Your task to perform on an android device: Go to Reddit.com Image 0: 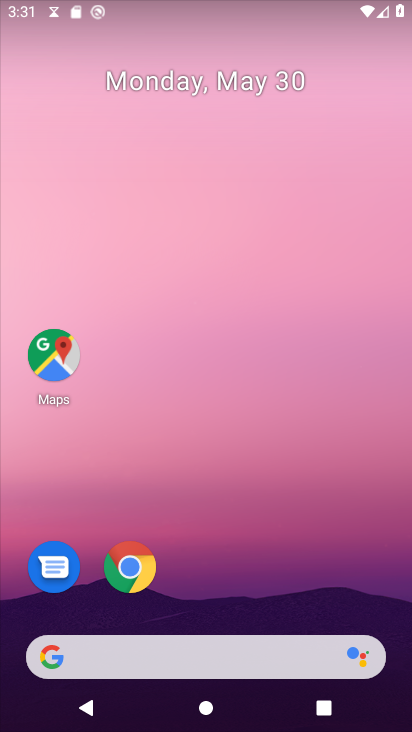
Step 0: drag from (229, 477) to (177, 21)
Your task to perform on an android device: Go to Reddit.com Image 1: 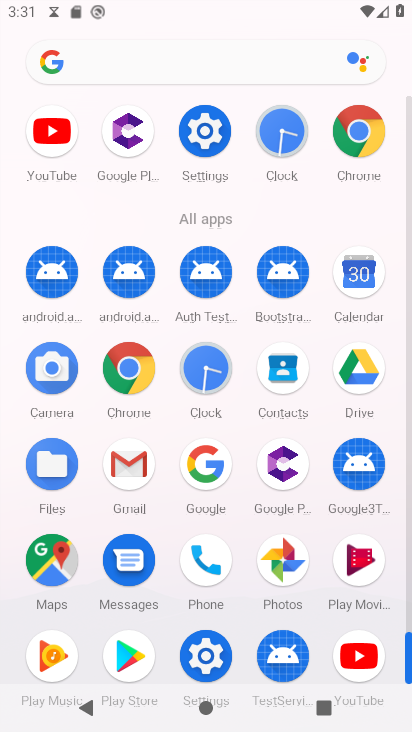
Step 1: click (347, 131)
Your task to perform on an android device: Go to Reddit.com Image 2: 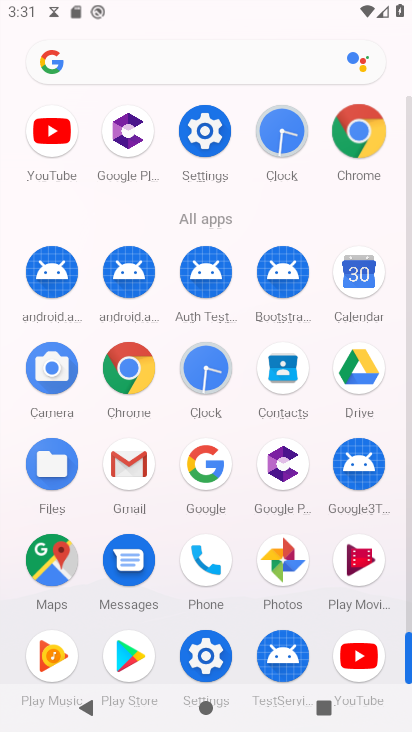
Step 2: click (348, 130)
Your task to perform on an android device: Go to Reddit.com Image 3: 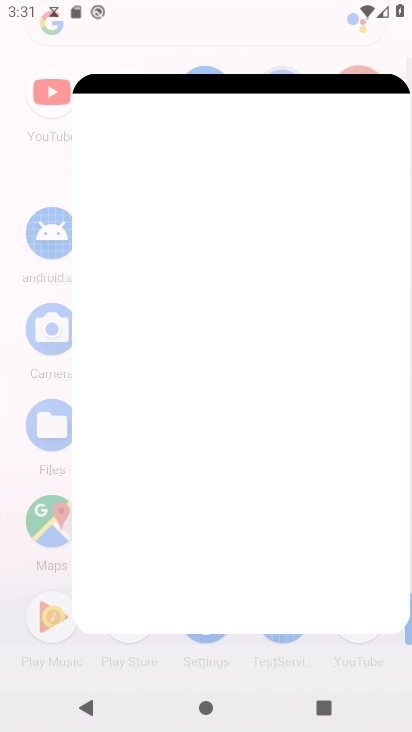
Step 3: click (350, 131)
Your task to perform on an android device: Go to Reddit.com Image 4: 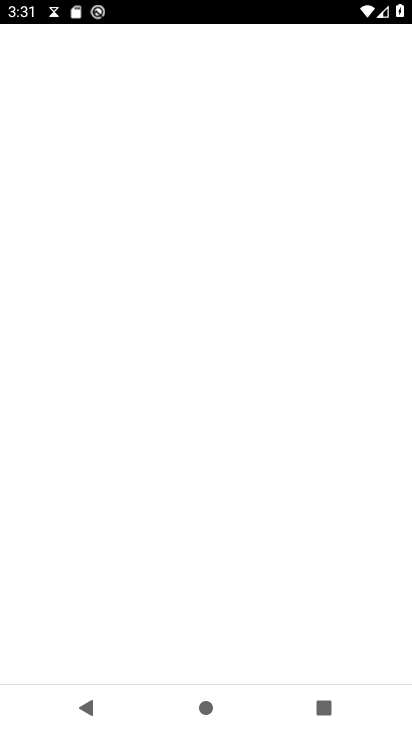
Step 4: click (354, 129)
Your task to perform on an android device: Go to Reddit.com Image 5: 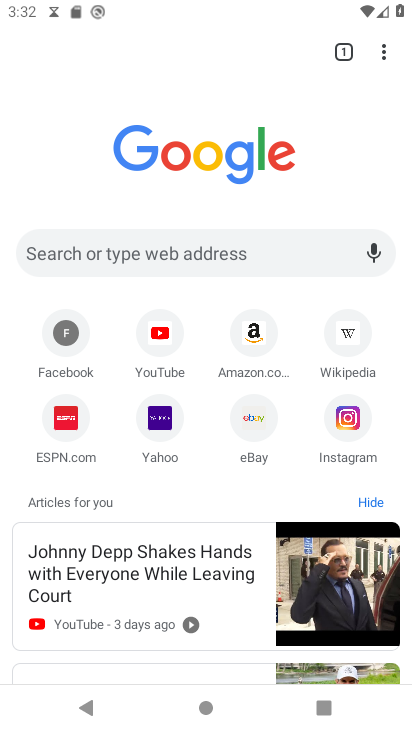
Step 5: click (76, 255)
Your task to perform on an android device: Go to Reddit.com Image 6: 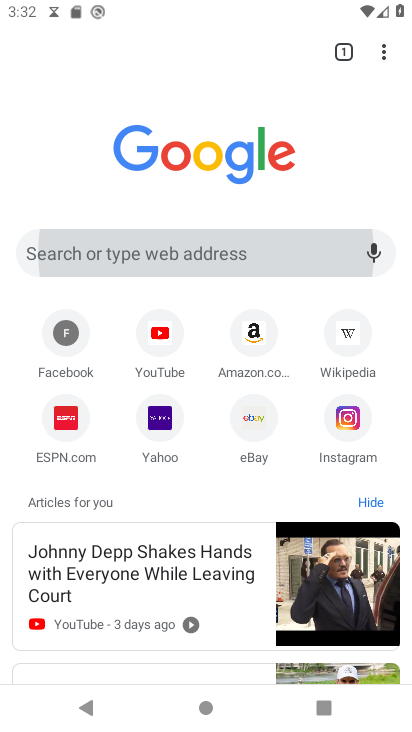
Step 6: click (75, 254)
Your task to perform on an android device: Go to Reddit.com Image 7: 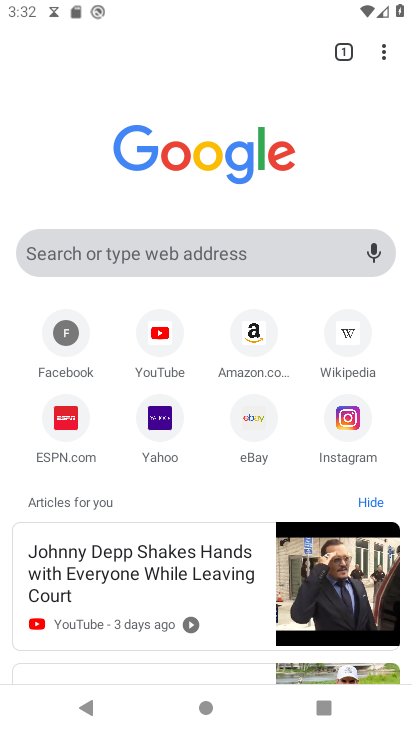
Step 7: click (75, 254)
Your task to perform on an android device: Go to Reddit.com Image 8: 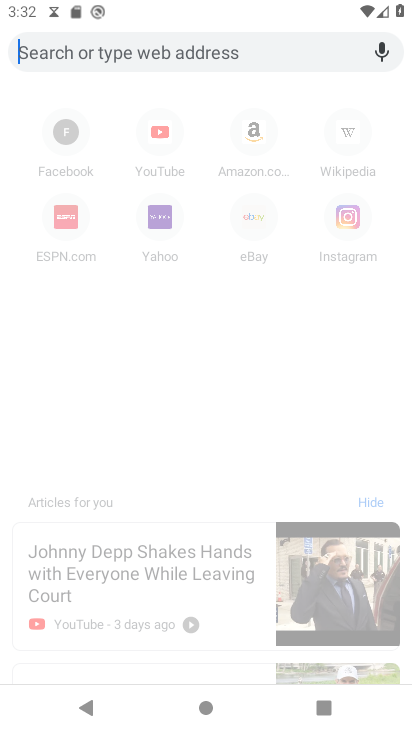
Step 8: click (76, 254)
Your task to perform on an android device: Go to Reddit.com Image 9: 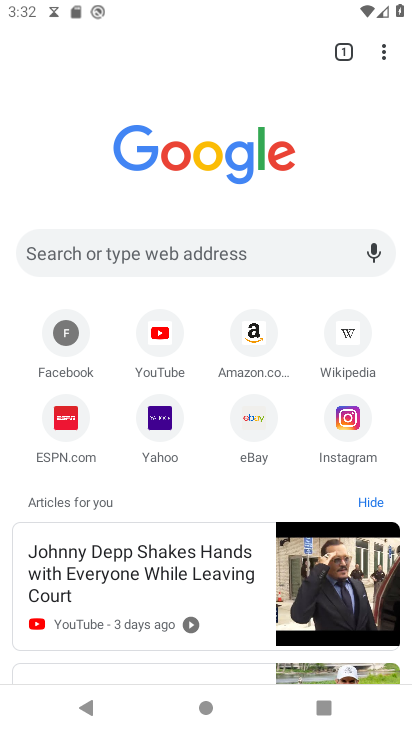
Step 9: click (46, 252)
Your task to perform on an android device: Go to Reddit.com Image 10: 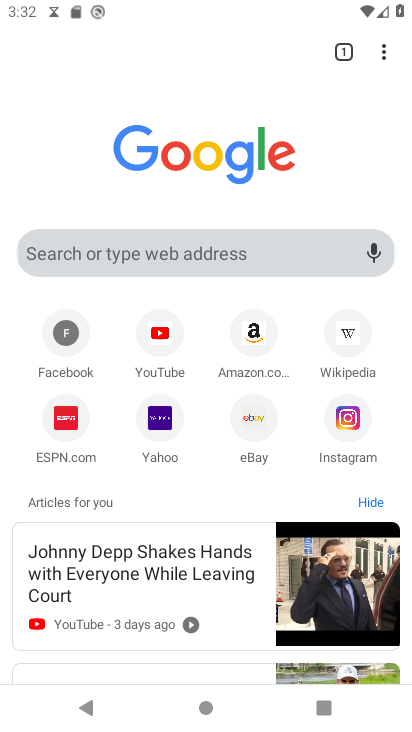
Step 10: click (45, 251)
Your task to perform on an android device: Go to Reddit.com Image 11: 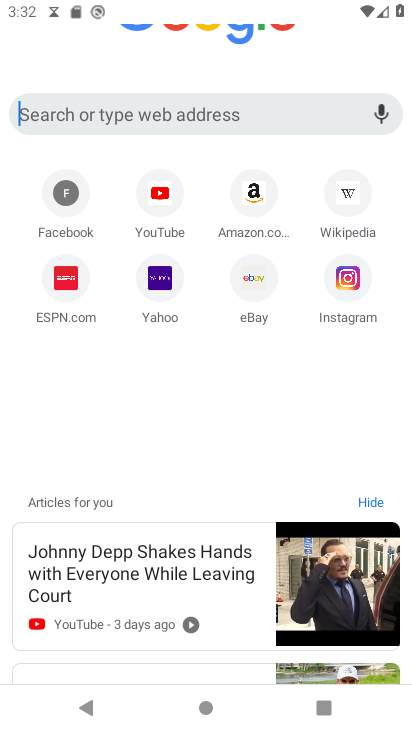
Step 11: click (45, 251)
Your task to perform on an android device: Go to Reddit.com Image 12: 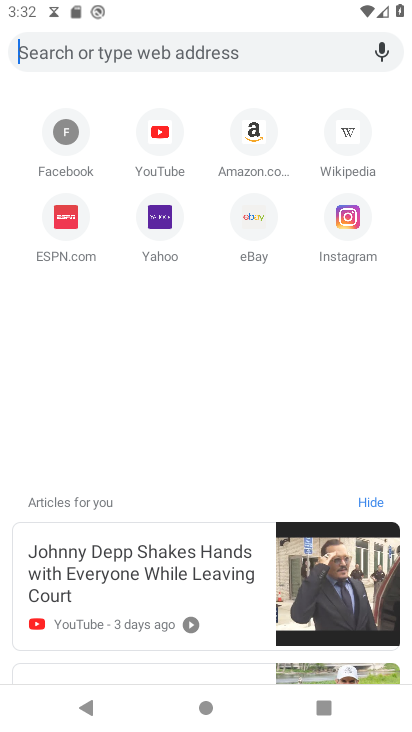
Step 12: click (45, 251)
Your task to perform on an android device: Go to Reddit.com Image 13: 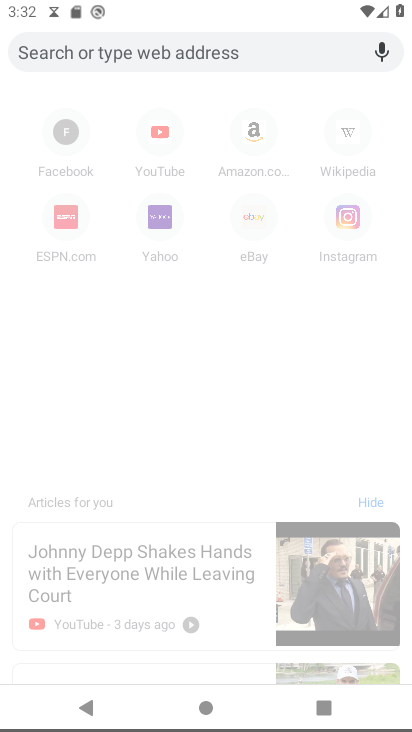
Step 13: click (47, 250)
Your task to perform on an android device: Go to Reddit.com Image 14: 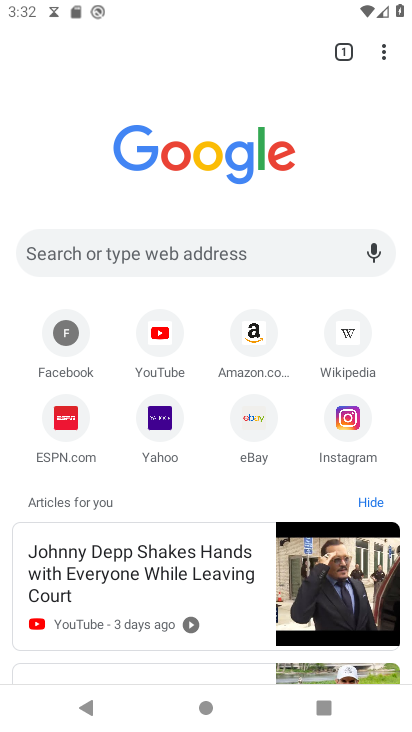
Step 14: click (64, 253)
Your task to perform on an android device: Go to Reddit.com Image 15: 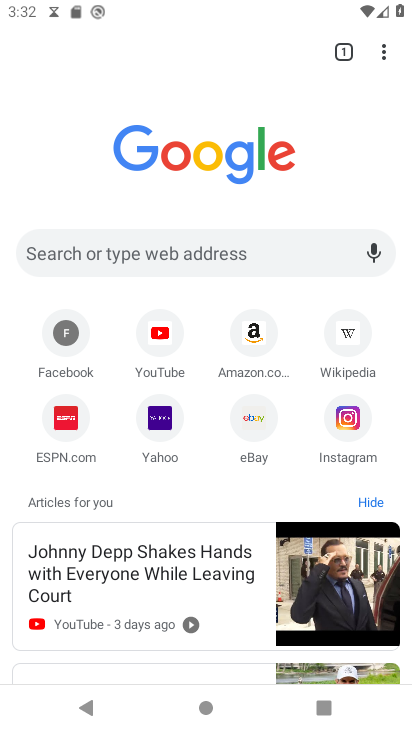
Step 15: click (64, 253)
Your task to perform on an android device: Go to Reddit.com Image 16: 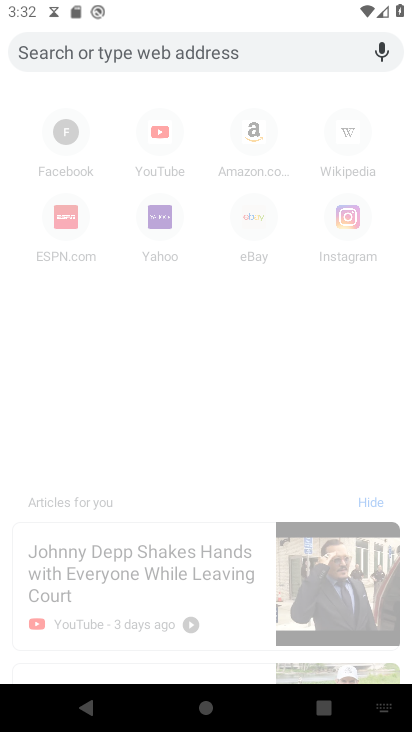
Step 16: type "reddit.com"
Your task to perform on an android device: Go to Reddit.com Image 17: 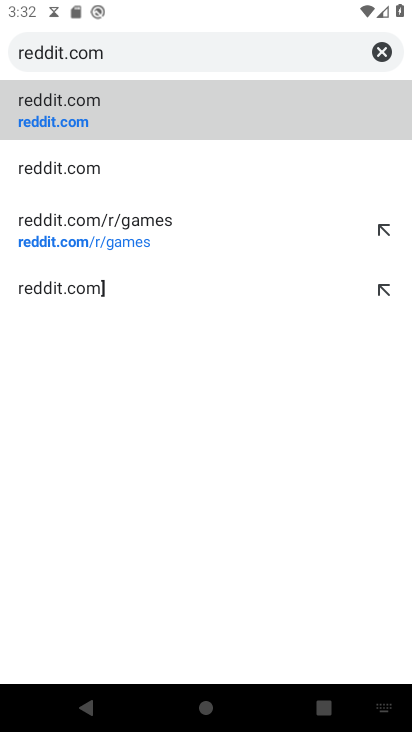
Step 17: click (52, 104)
Your task to perform on an android device: Go to Reddit.com Image 18: 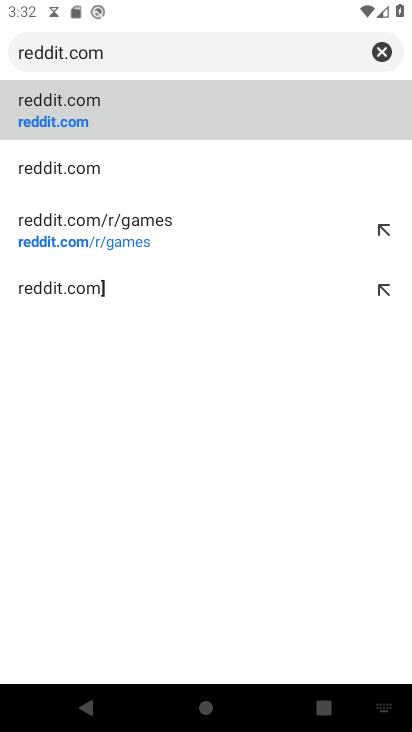
Step 18: click (51, 105)
Your task to perform on an android device: Go to Reddit.com Image 19: 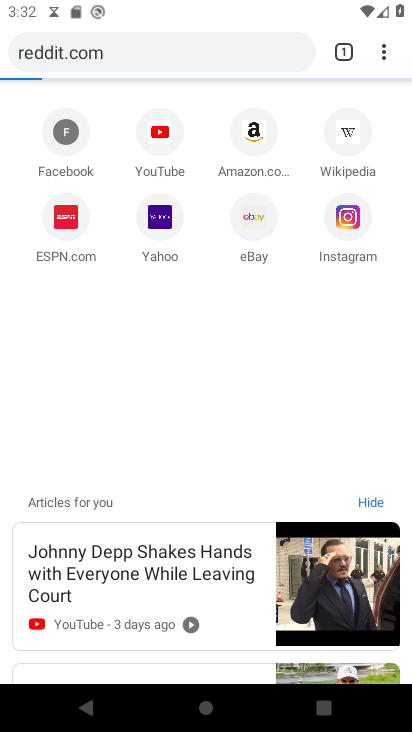
Step 19: click (50, 105)
Your task to perform on an android device: Go to Reddit.com Image 20: 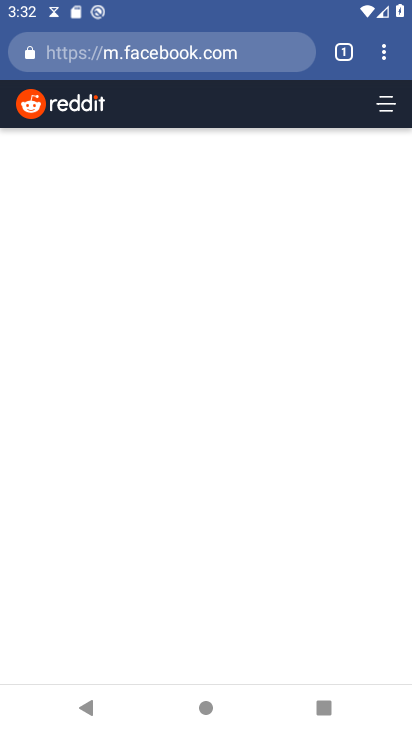
Step 20: task complete